Your task to perform on an android device: move a message to another label in the gmail app Image 0: 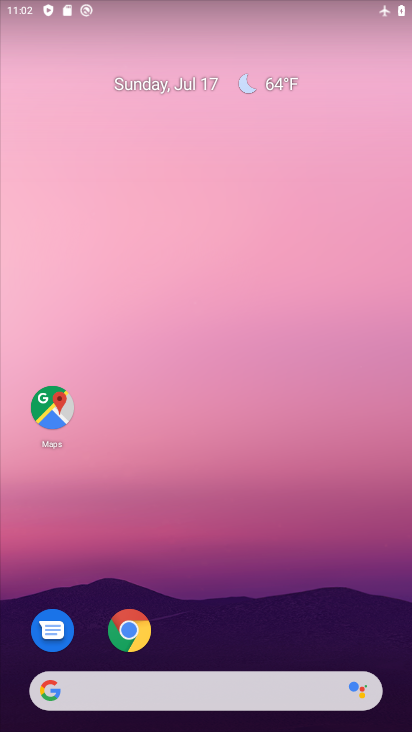
Step 0: drag from (372, 647) to (343, 126)
Your task to perform on an android device: move a message to another label in the gmail app Image 1: 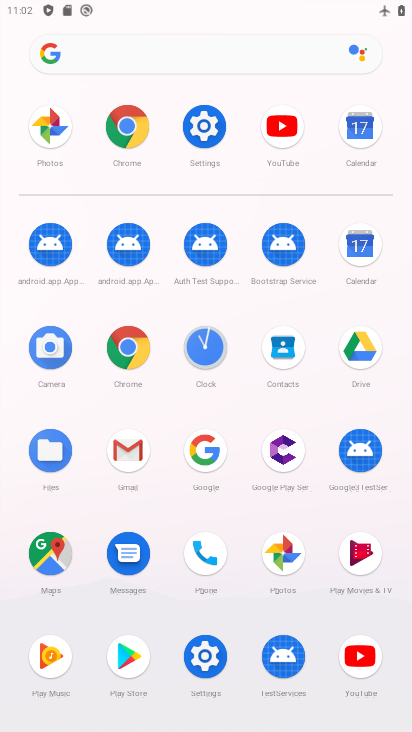
Step 1: click (125, 448)
Your task to perform on an android device: move a message to another label in the gmail app Image 2: 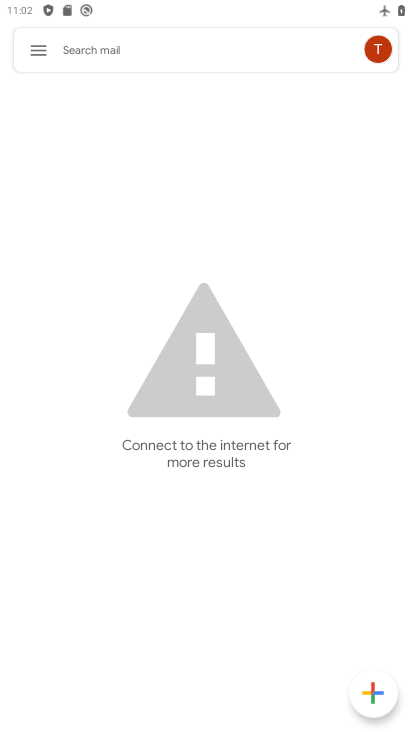
Step 2: click (31, 52)
Your task to perform on an android device: move a message to another label in the gmail app Image 3: 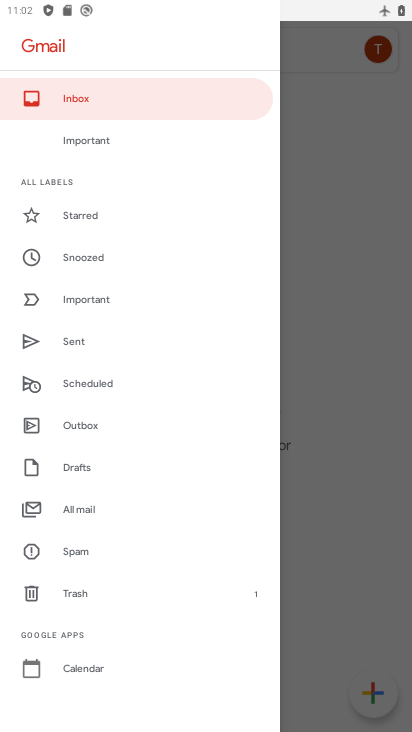
Step 3: click (81, 510)
Your task to perform on an android device: move a message to another label in the gmail app Image 4: 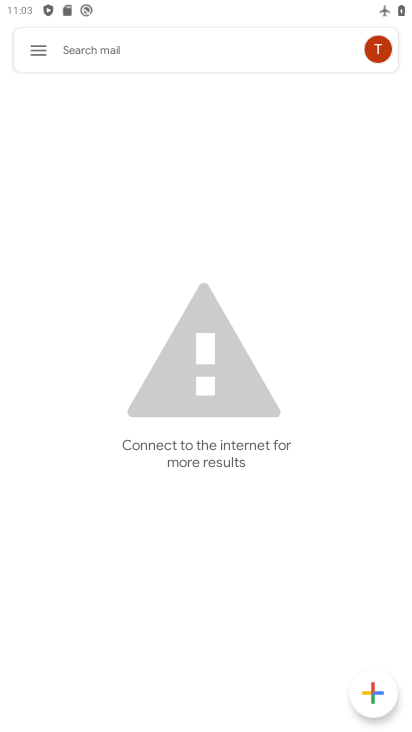
Step 4: task complete